Your task to perform on an android device: Go to Android settings Image 0: 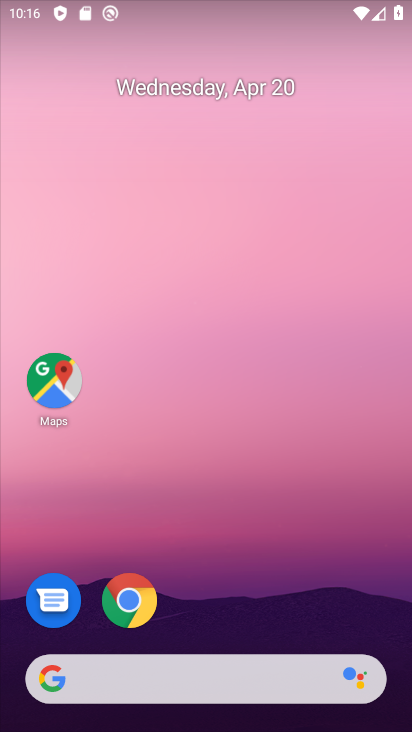
Step 0: drag from (263, 515) to (277, 63)
Your task to perform on an android device: Go to Android settings Image 1: 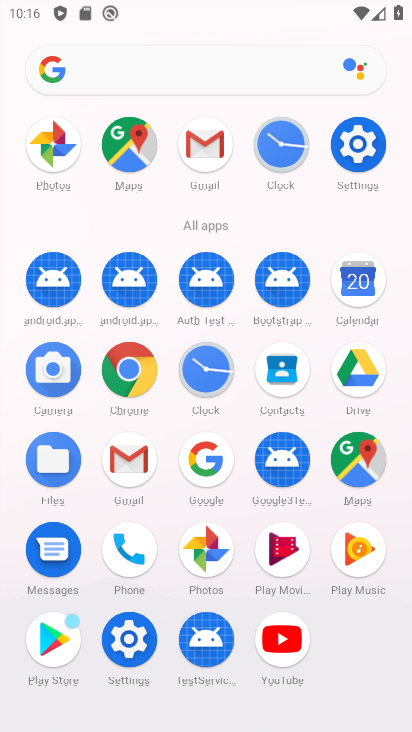
Step 1: click (360, 152)
Your task to perform on an android device: Go to Android settings Image 2: 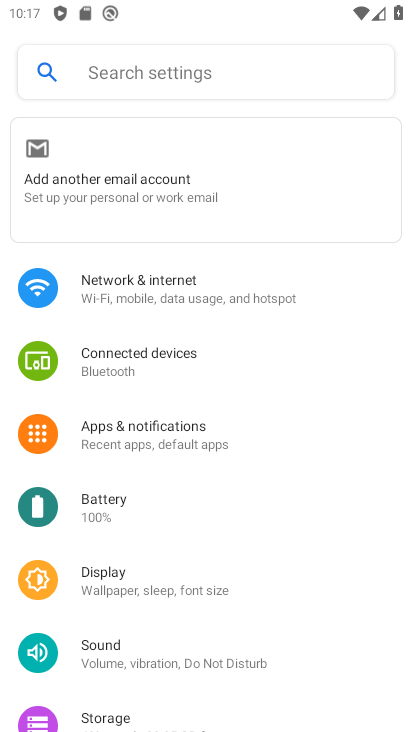
Step 2: task complete